Your task to perform on an android device: find snoozed emails in the gmail app Image 0: 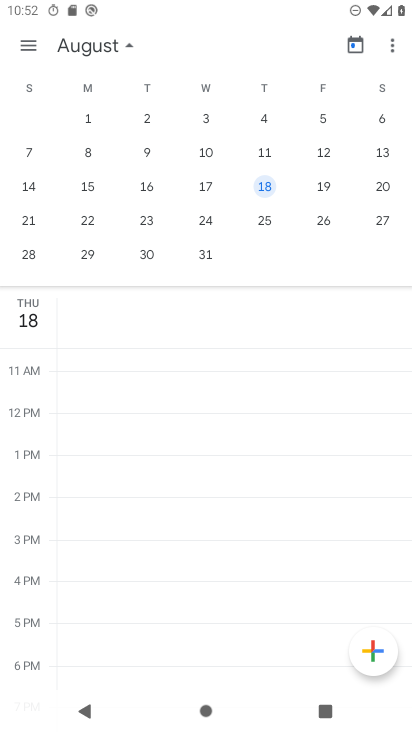
Step 0: press home button
Your task to perform on an android device: find snoozed emails in the gmail app Image 1: 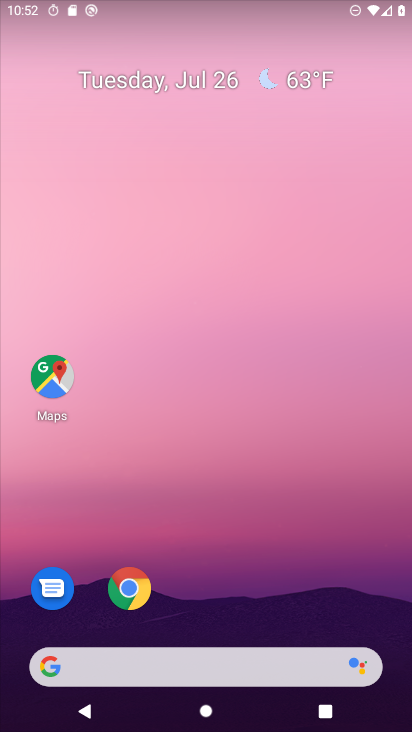
Step 1: drag from (218, 608) to (288, 28)
Your task to perform on an android device: find snoozed emails in the gmail app Image 2: 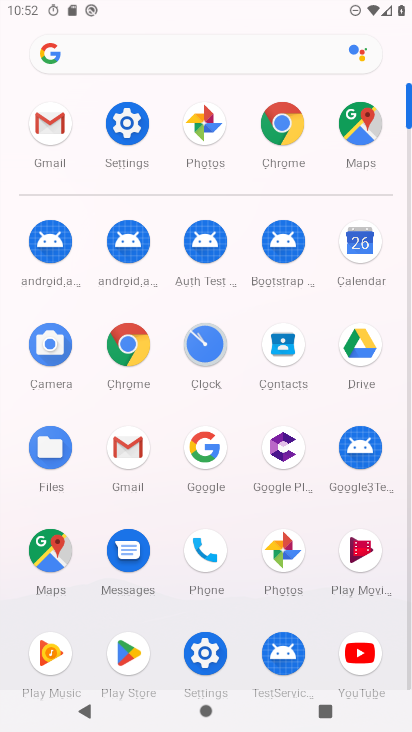
Step 2: click (53, 133)
Your task to perform on an android device: find snoozed emails in the gmail app Image 3: 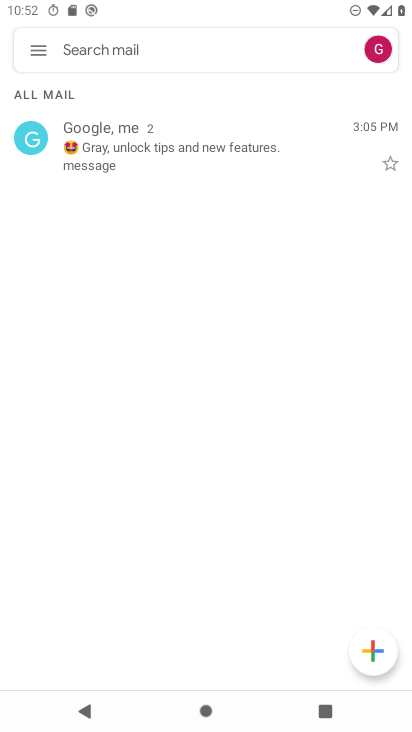
Step 3: click (36, 49)
Your task to perform on an android device: find snoozed emails in the gmail app Image 4: 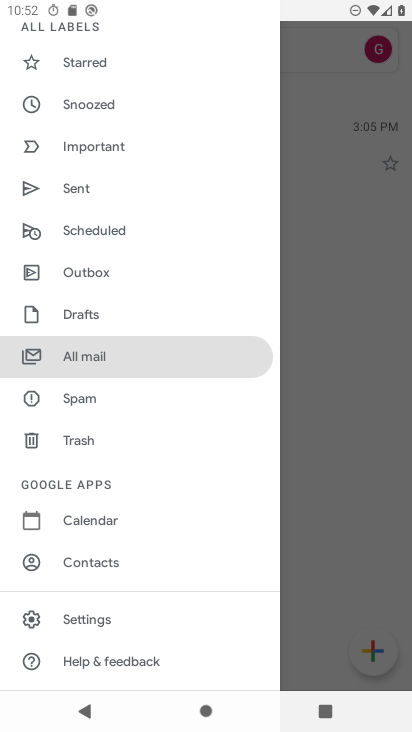
Step 4: click (153, 110)
Your task to perform on an android device: find snoozed emails in the gmail app Image 5: 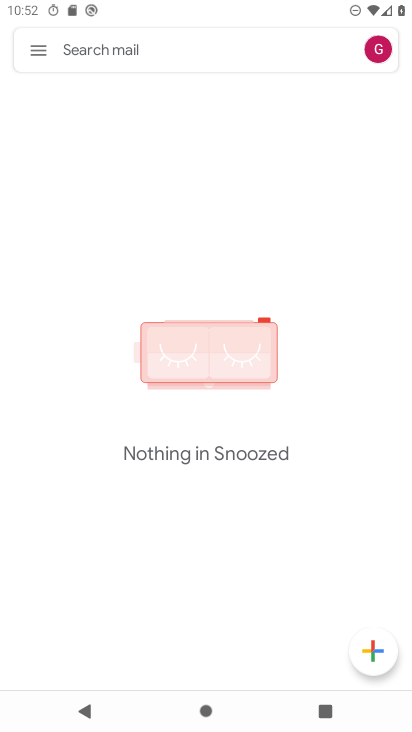
Step 5: task complete